Your task to perform on an android device: open a bookmark in the chrome app Image 0: 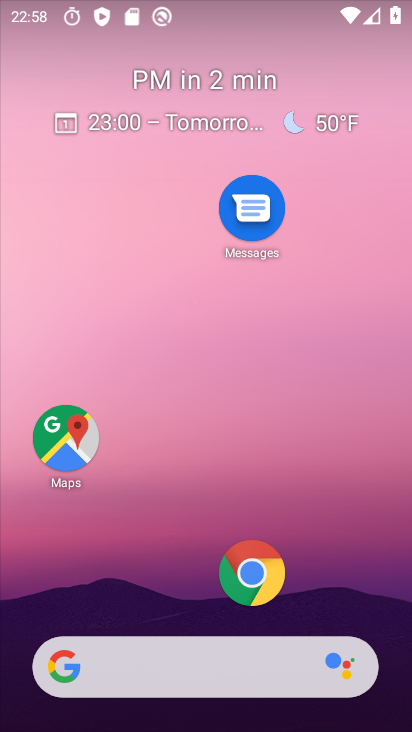
Step 0: click (252, 574)
Your task to perform on an android device: open a bookmark in the chrome app Image 1: 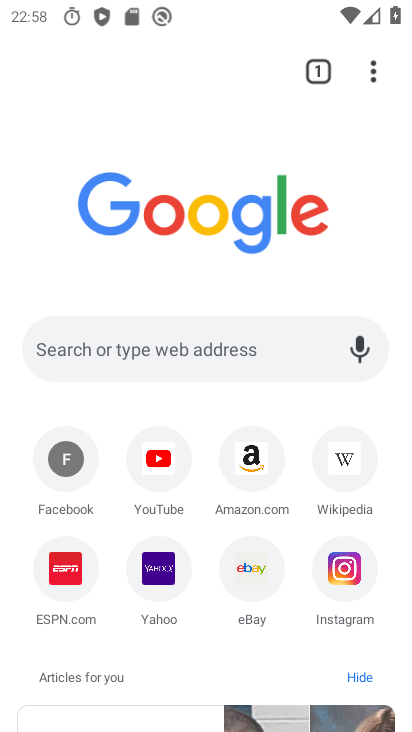
Step 1: click (370, 73)
Your task to perform on an android device: open a bookmark in the chrome app Image 2: 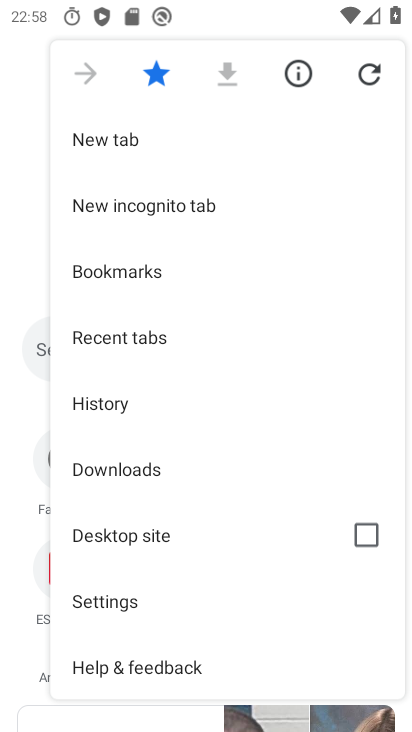
Step 2: click (111, 278)
Your task to perform on an android device: open a bookmark in the chrome app Image 3: 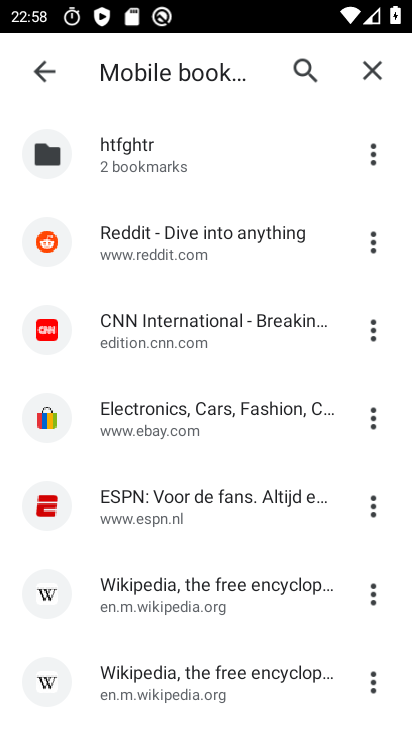
Step 3: drag from (201, 530) to (215, 320)
Your task to perform on an android device: open a bookmark in the chrome app Image 4: 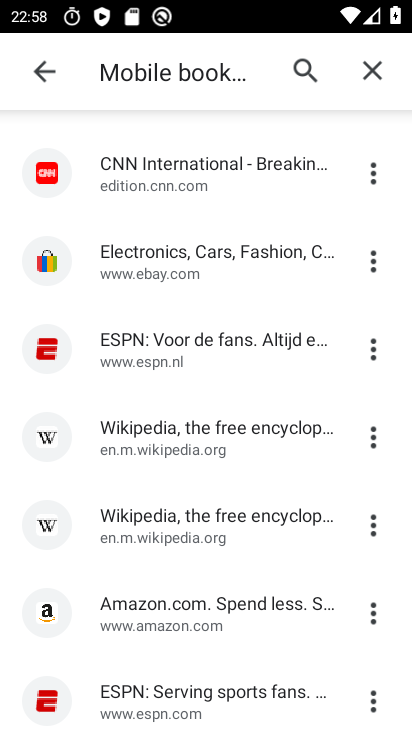
Step 4: click (162, 515)
Your task to perform on an android device: open a bookmark in the chrome app Image 5: 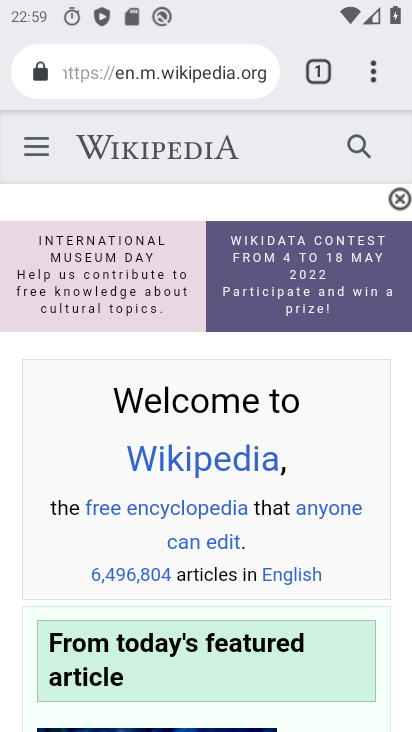
Step 5: task complete